Your task to perform on an android device: turn off priority inbox in the gmail app Image 0: 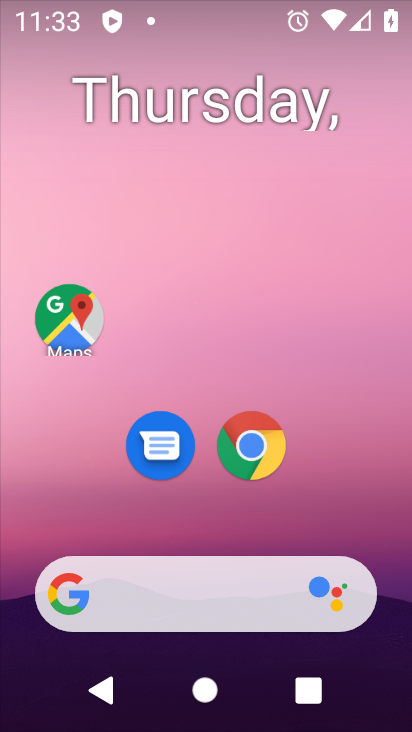
Step 0: drag from (325, 492) to (347, 160)
Your task to perform on an android device: turn off priority inbox in the gmail app Image 1: 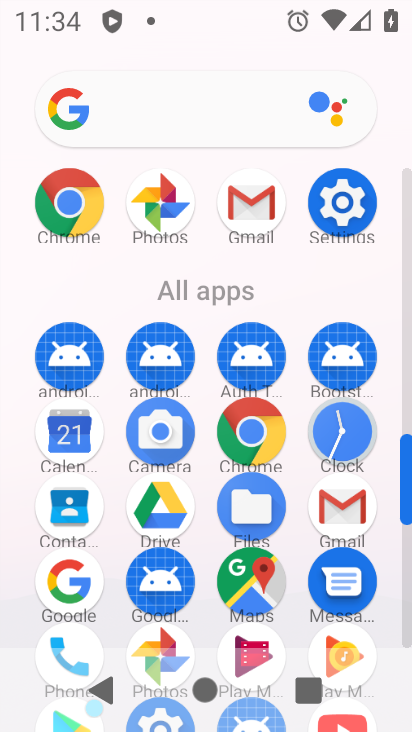
Step 1: click (237, 194)
Your task to perform on an android device: turn off priority inbox in the gmail app Image 2: 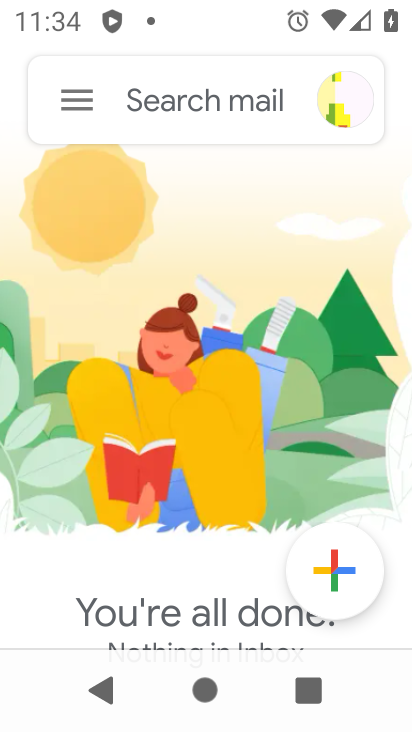
Step 2: click (66, 99)
Your task to perform on an android device: turn off priority inbox in the gmail app Image 3: 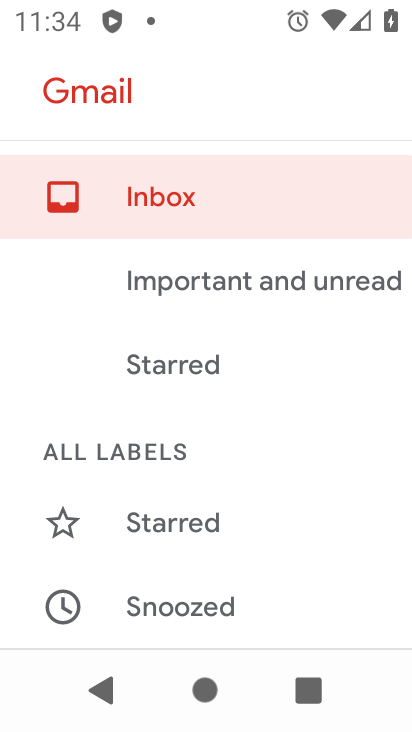
Step 3: drag from (200, 543) to (310, 191)
Your task to perform on an android device: turn off priority inbox in the gmail app Image 4: 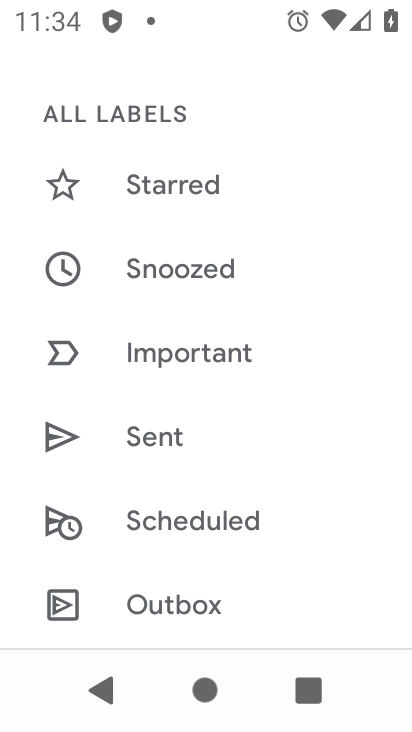
Step 4: drag from (263, 561) to (322, 202)
Your task to perform on an android device: turn off priority inbox in the gmail app Image 5: 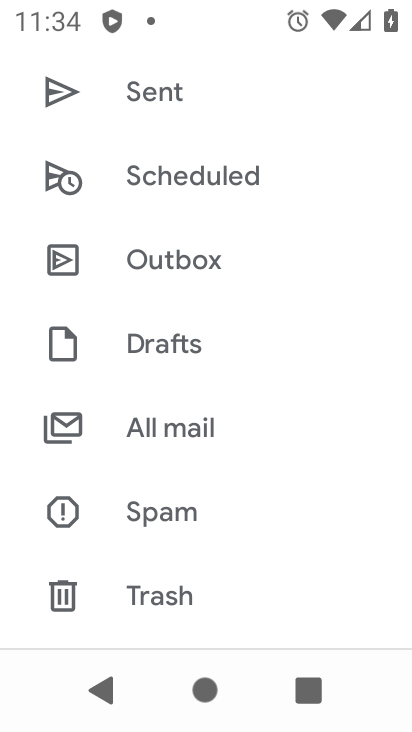
Step 5: drag from (238, 546) to (248, 184)
Your task to perform on an android device: turn off priority inbox in the gmail app Image 6: 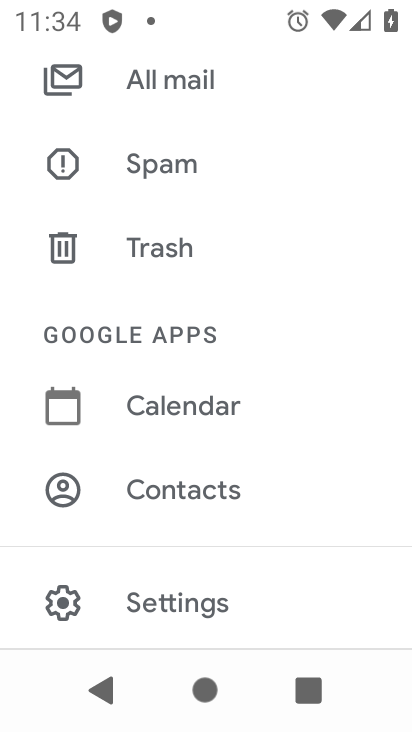
Step 6: click (195, 599)
Your task to perform on an android device: turn off priority inbox in the gmail app Image 7: 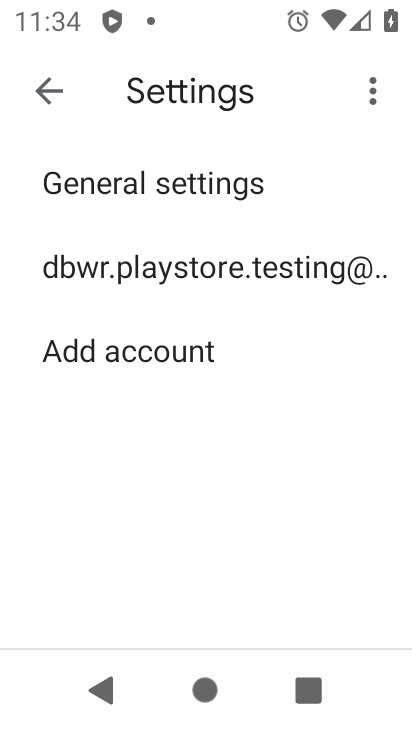
Step 7: click (81, 257)
Your task to perform on an android device: turn off priority inbox in the gmail app Image 8: 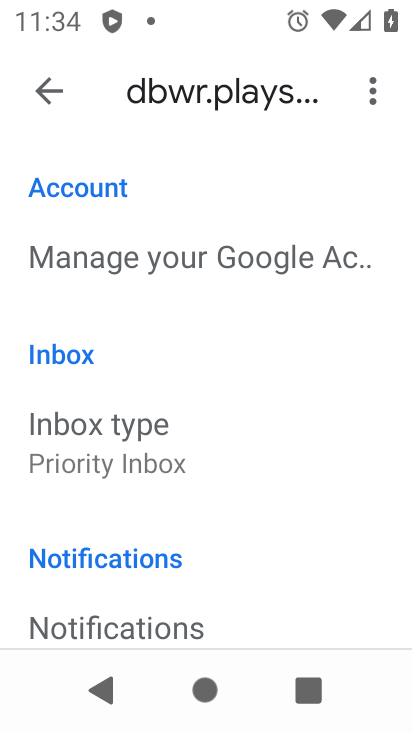
Step 8: click (105, 438)
Your task to perform on an android device: turn off priority inbox in the gmail app Image 9: 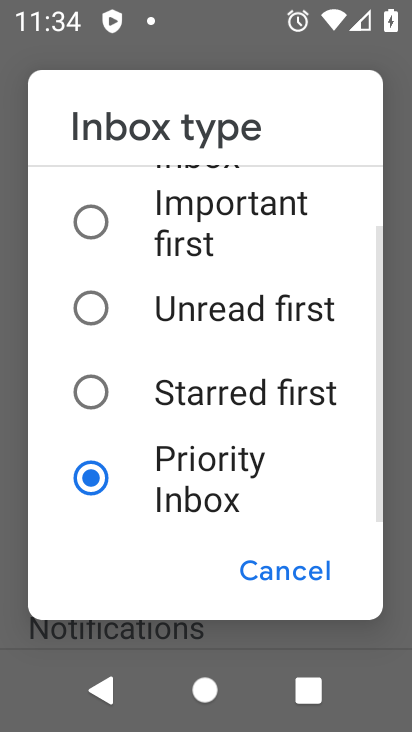
Step 9: click (89, 228)
Your task to perform on an android device: turn off priority inbox in the gmail app Image 10: 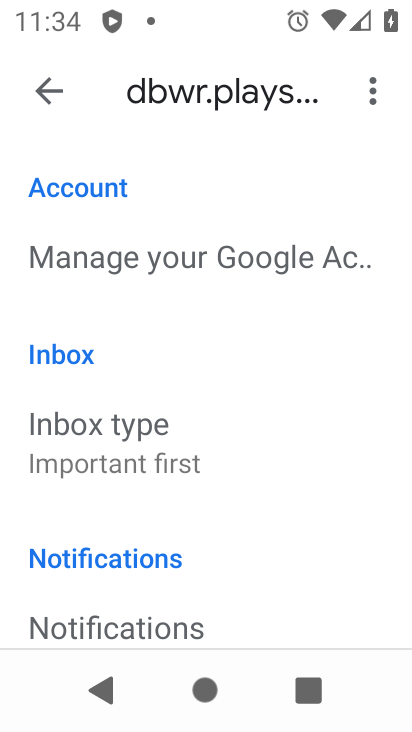
Step 10: task complete